Your task to perform on an android device: choose inbox layout in the gmail app Image 0: 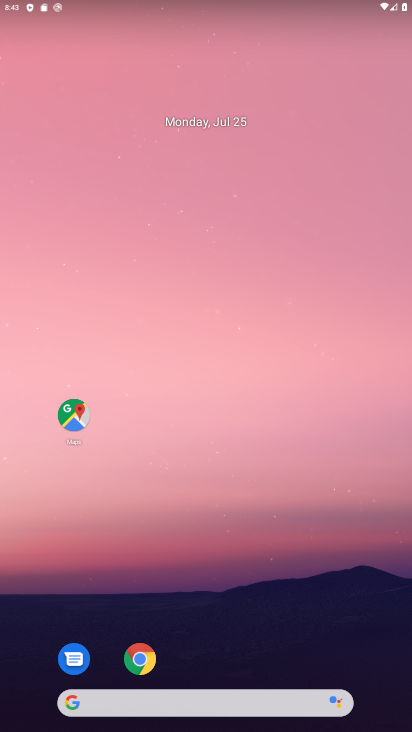
Step 0: drag from (191, 650) to (206, 40)
Your task to perform on an android device: choose inbox layout in the gmail app Image 1: 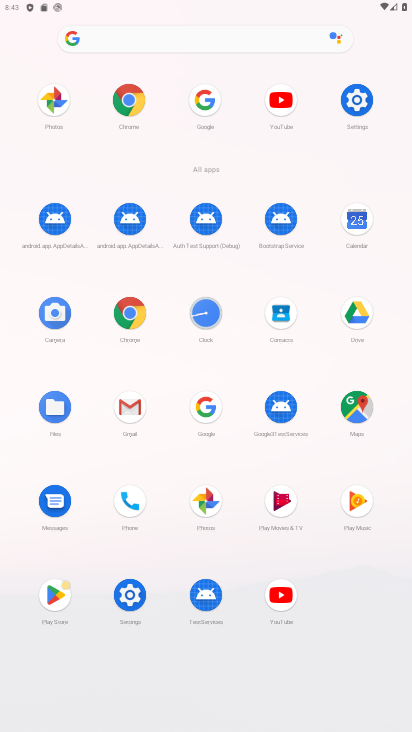
Step 1: click (129, 418)
Your task to perform on an android device: choose inbox layout in the gmail app Image 2: 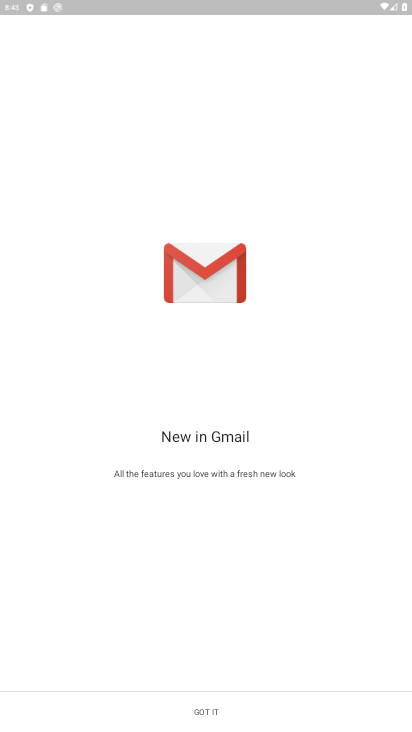
Step 2: click (190, 717)
Your task to perform on an android device: choose inbox layout in the gmail app Image 3: 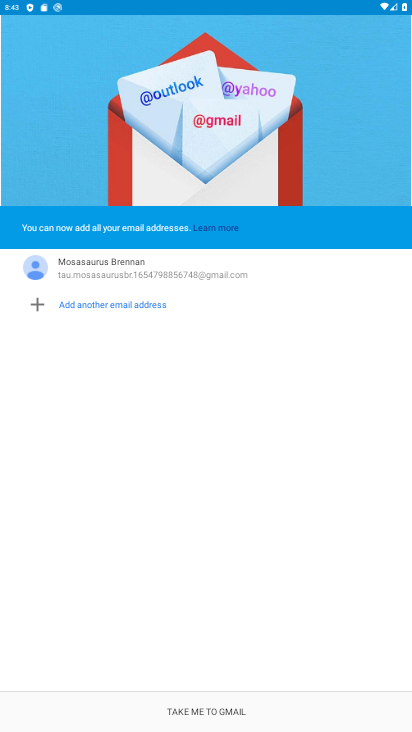
Step 3: click (190, 717)
Your task to perform on an android device: choose inbox layout in the gmail app Image 4: 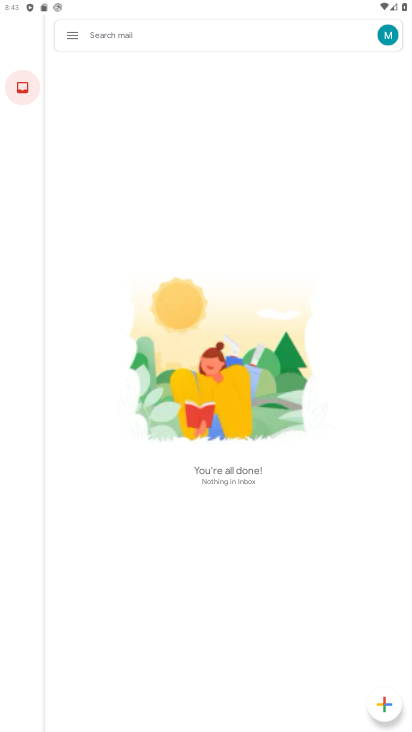
Step 4: click (64, 37)
Your task to perform on an android device: choose inbox layout in the gmail app Image 5: 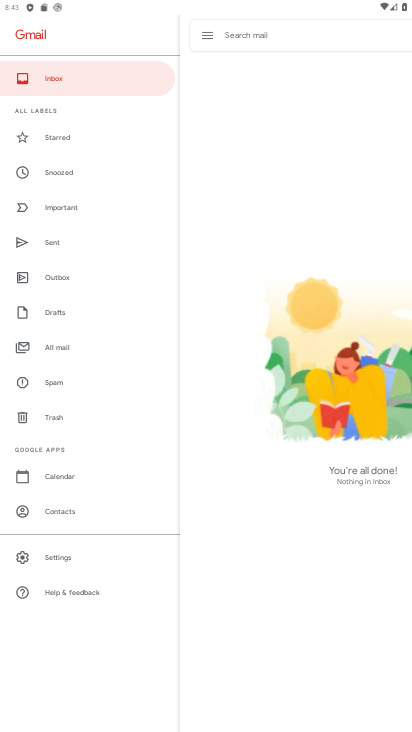
Step 5: click (109, 560)
Your task to perform on an android device: choose inbox layout in the gmail app Image 6: 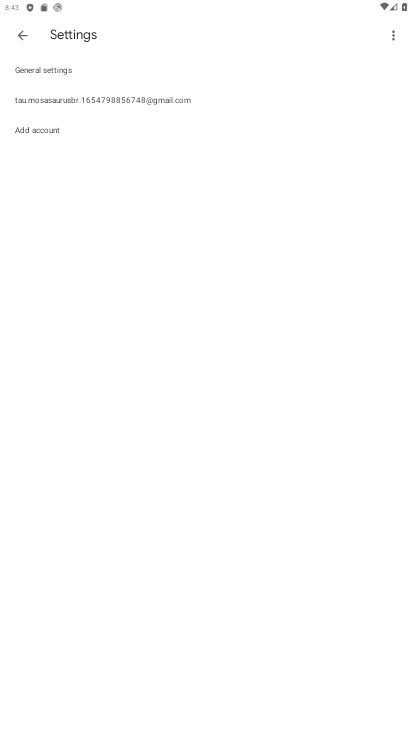
Step 6: click (136, 107)
Your task to perform on an android device: choose inbox layout in the gmail app Image 7: 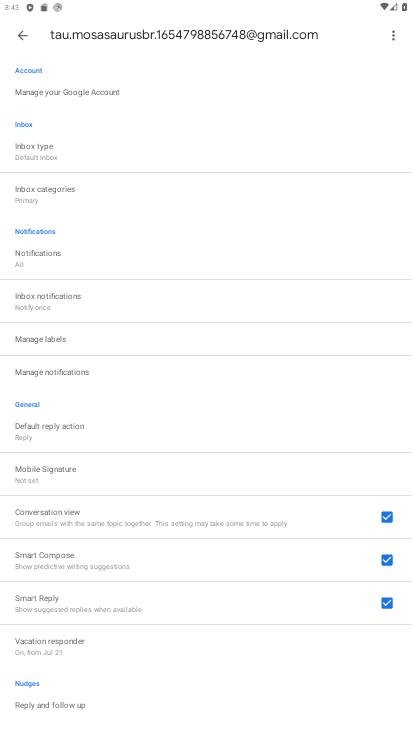
Step 7: click (79, 159)
Your task to perform on an android device: choose inbox layout in the gmail app Image 8: 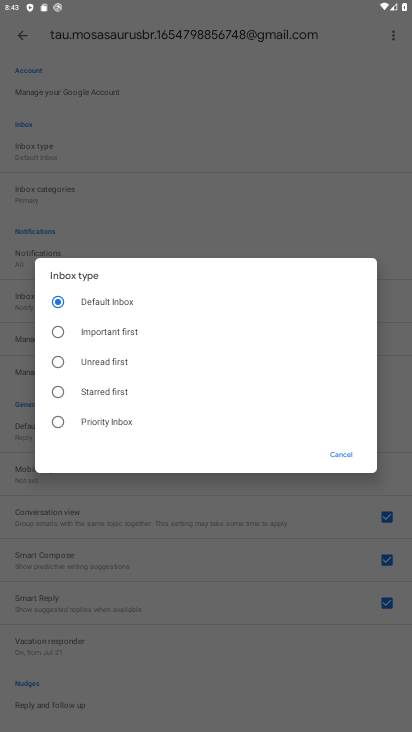
Step 8: click (128, 415)
Your task to perform on an android device: choose inbox layout in the gmail app Image 9: 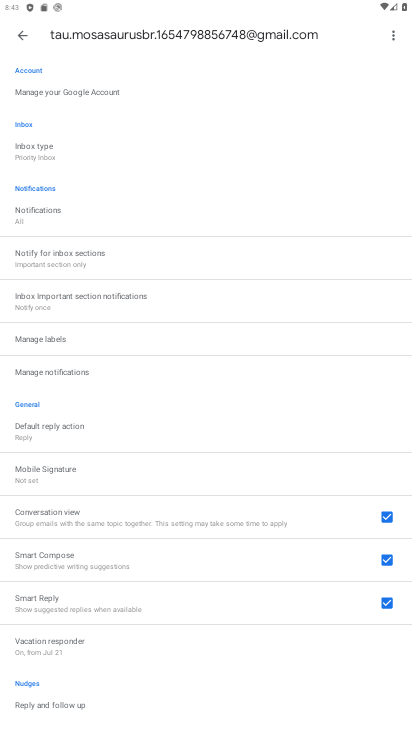
Step 9: task complete